Your task to perform on an android device: Turn off the flashlight Image 0: 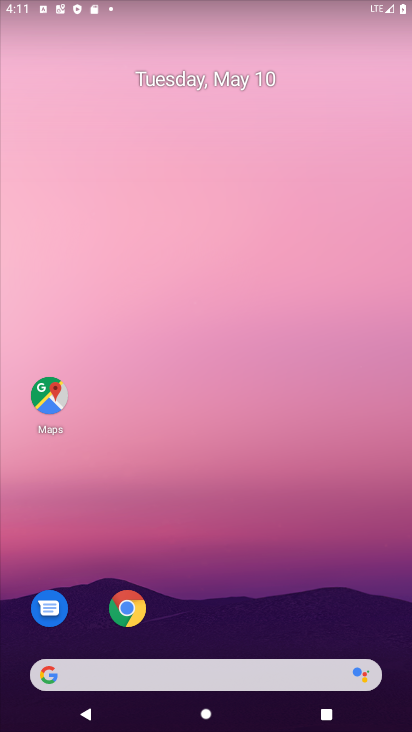
Step 0: drag from (211, 6) to (241, 499)
Your task to perform on an android device: Turn off the flashlight Image 1: 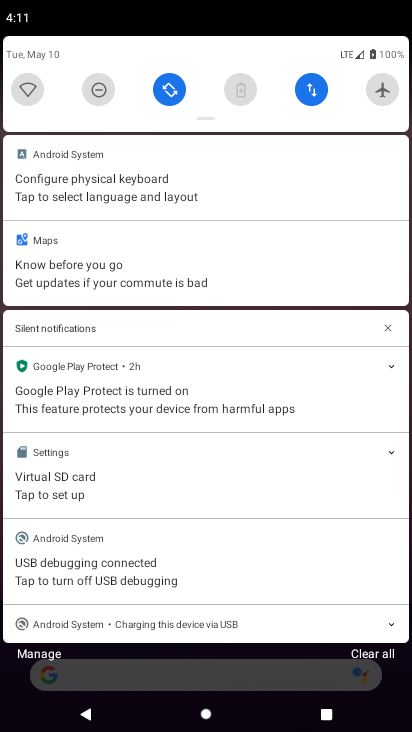
Step 1: drag from (197, 124) to (194, 423)
Your task to perform on an android device: Turn off the flashlight Image 2: 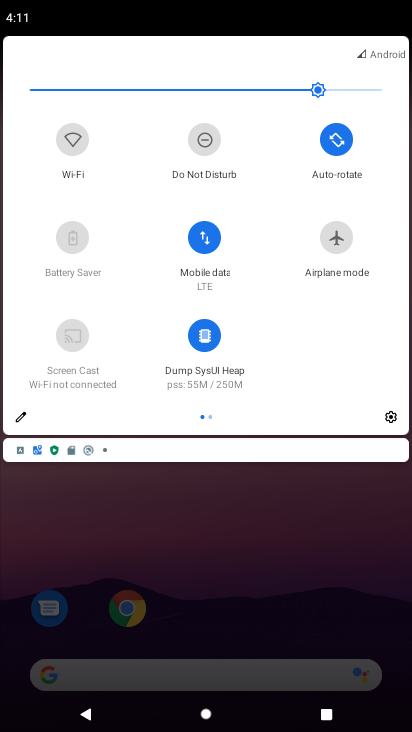
Step 2: click (19, 419)
Your task to perform on an android device: Turn off the flashlight Image 3: 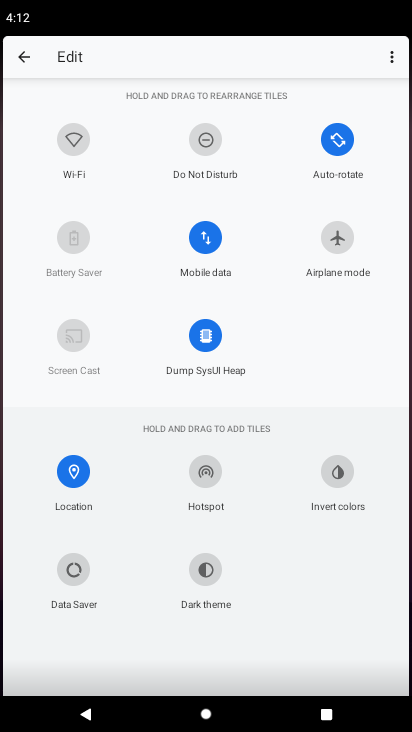
Step 3: task complete